Your task to perform on an android device: snooze an email in the gmail app Image 0: 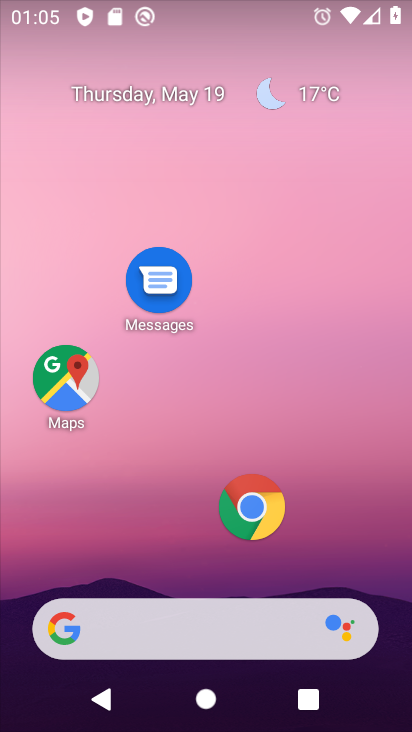
Step 0: drag from (210, 591) to (194, 273)
Your task to perform on an android device: snooze an email in the gmail app Image 1: 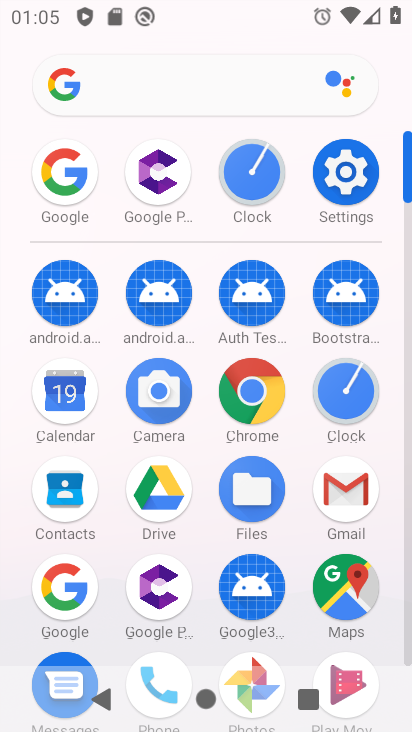
Step 1: click (330, 488)
Your task to perform on an android device: snooze an email in the gmail app Image 2: 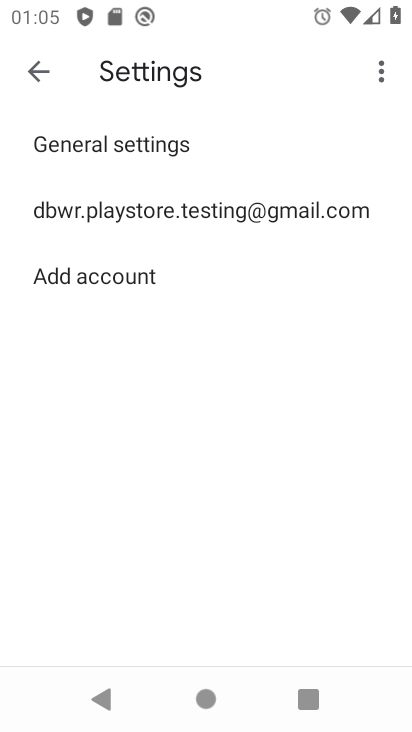
Step 2: click (45, 70)
Your task to perform on an android device: snooze an email in the gmail app Image 3: 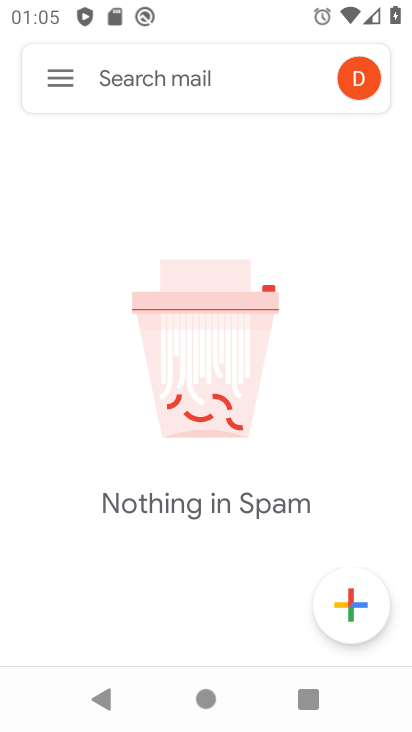
Step 3: click (62, 73)
Your task to perform on an android device: snooze an email in the gmail app Image 4: 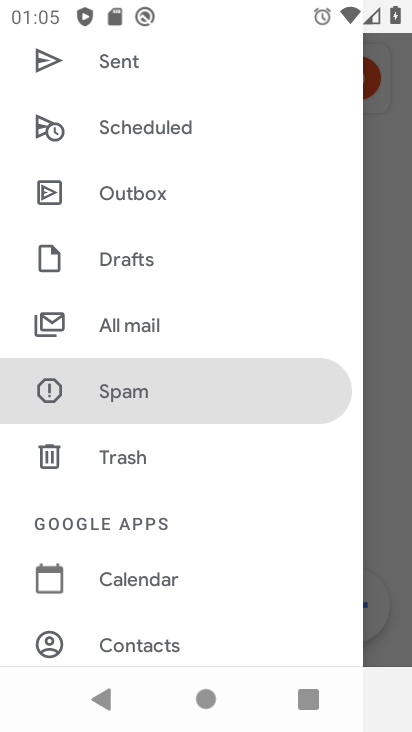
Step 4: drag from (146, 132) to (189, 567)
Your task to perform on an android device: snooze an email in the gmail app Image 5: 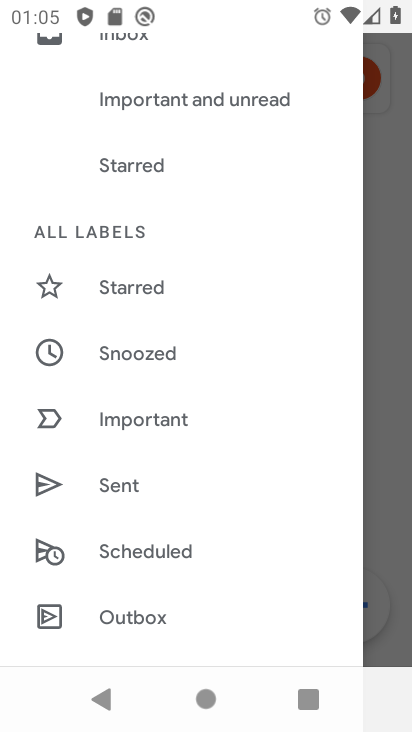
Step 5: click (149, 358)
Your task to perform on an android device: snooze an email in the gmail app Image 6: 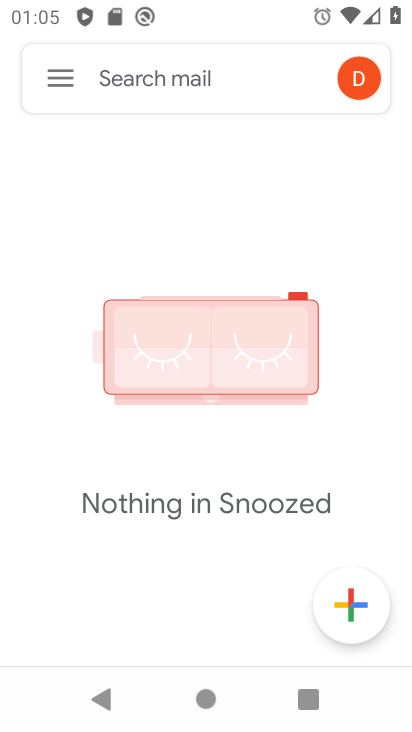
Step 6: task complete